Your task to perform on an android device: Find coffee shops on Maps Image 0: 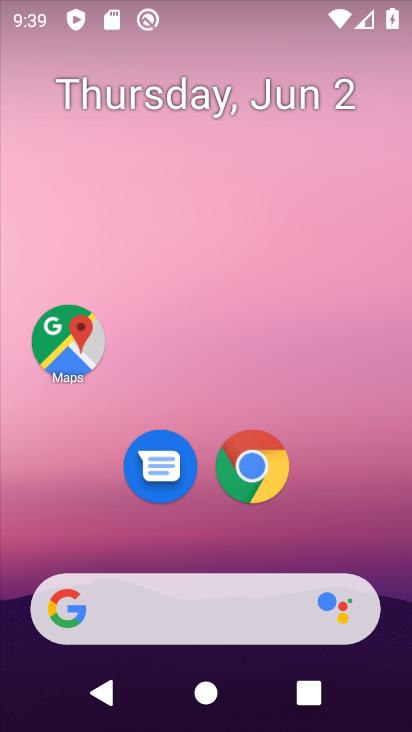
Step 0: click (72, 343)
Your task to perform on an android device: Find coffee shops on Maps Image 1: 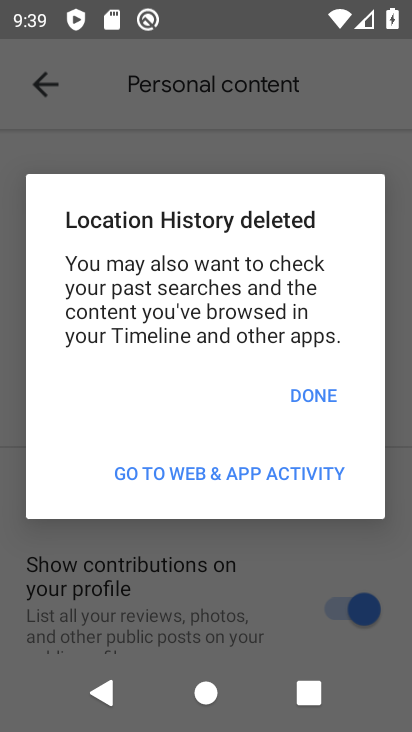
Step 1: press back button
Your task to perform on an android device: Find coffee shops on Maps Image 2: 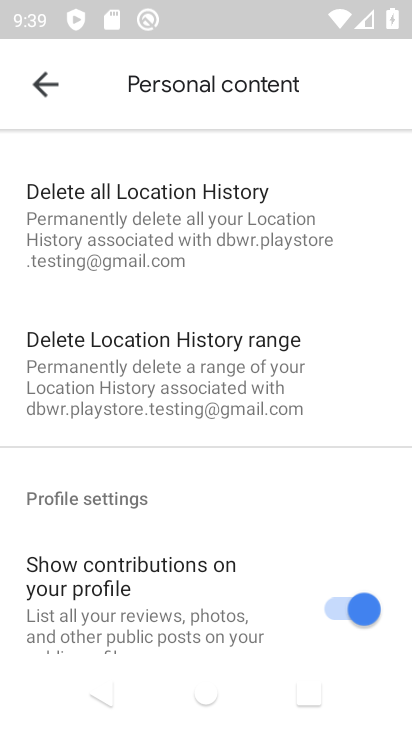
Step 2: click (33, 91)
Your task to perform on an android device: Find coffee shops on Maps Image 3: 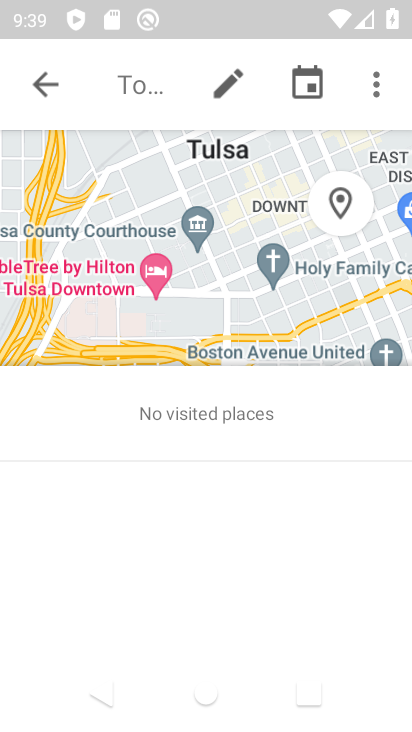
Step 3: click (35, 76)
Your task to perform on an android device: Find coffee shops on Maps Image 4: 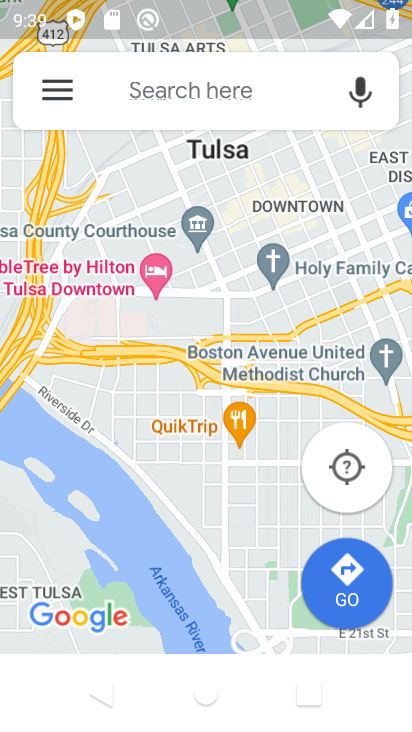
Step 4: click (188, 93)
Your task to perform on an android device: Find coffee shops on Maps Image 5: 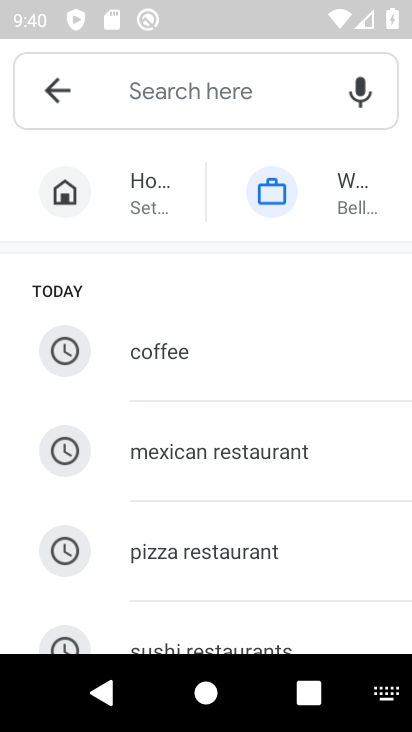
Step 5: type "coffee shops"
Your task to perform on an android device: Find coffee shops on Maps Image 6: 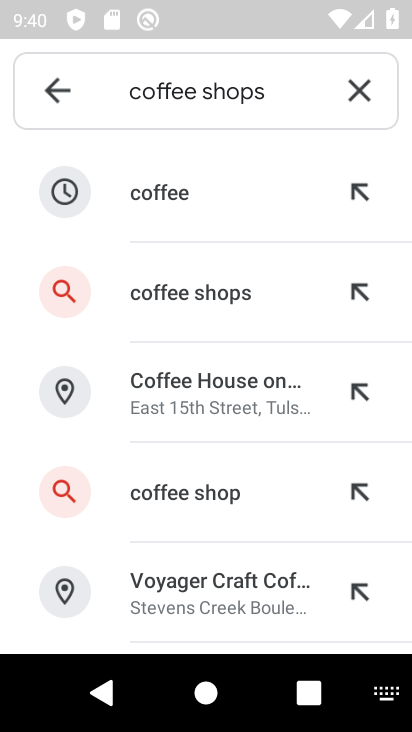
Step 6: click (177, 286)
Your task to perform on an android device: Find coffee shops on Maps Image 7: 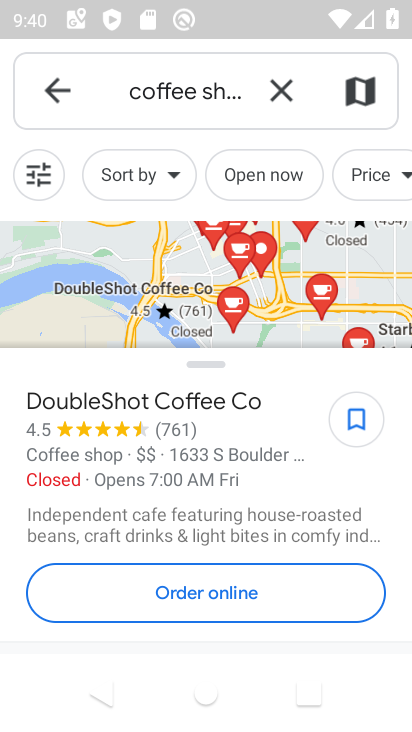
Step 7: task complete